Your task to perform on an android device: Search for sushi restaurants on Maps Image 0: 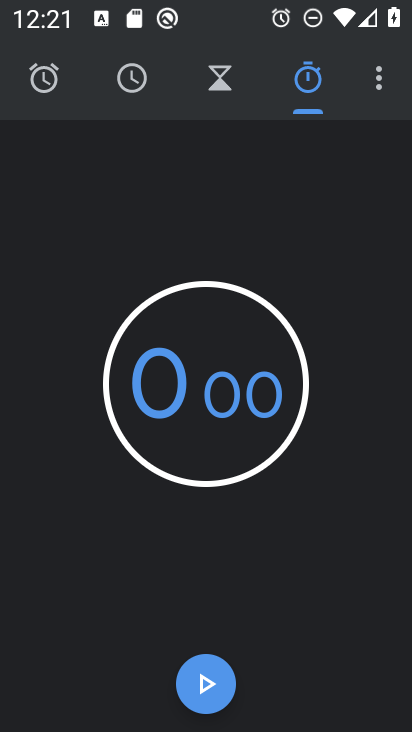
Step 0: press home button
Your task to perform on an android device: Search for sushi restaurants on Maps Image 1: 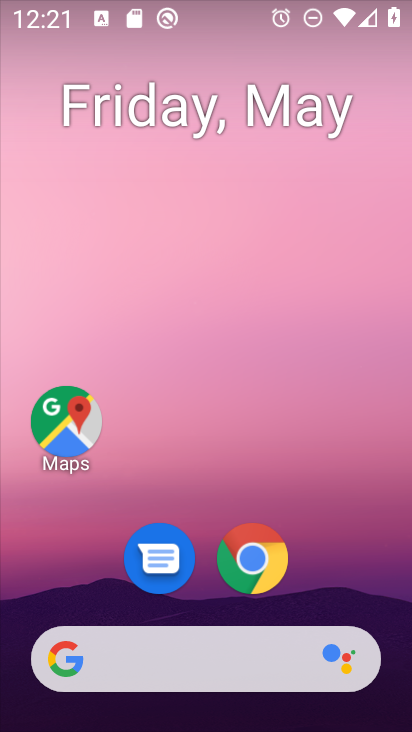
Step 1: click (66, 424)
Your task to perform on an android device: Search for sushi restaurants on Maps Image 2: 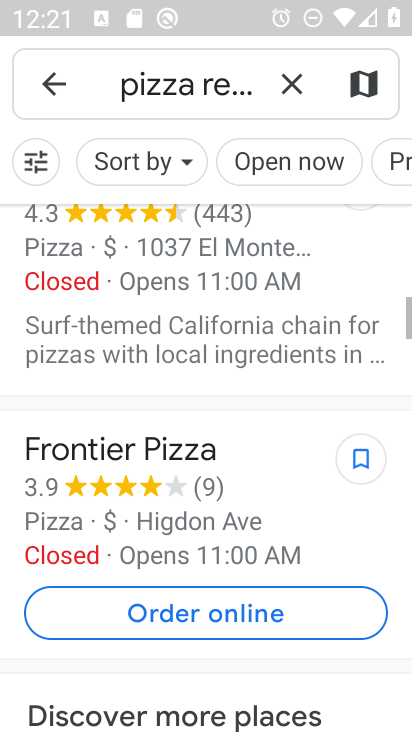
Step 2: click (288, 81)
Your task to perform on an android device: Search for sushi restaurants on Maps Image 3: 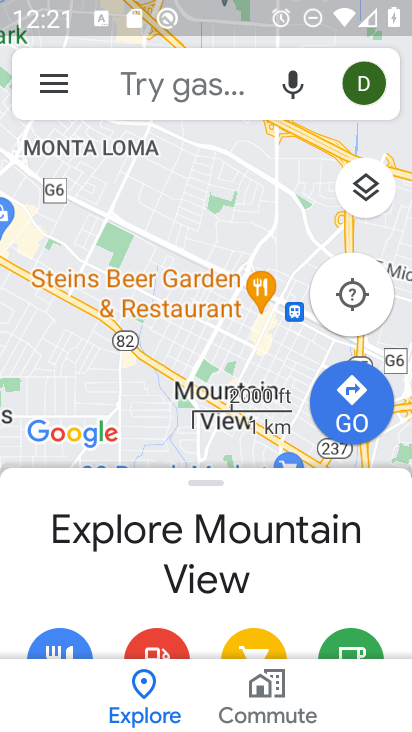
Step 3: click (146, 83)
Your task to perform on an android device: Search for sushi restaurants on Maps Image 4: 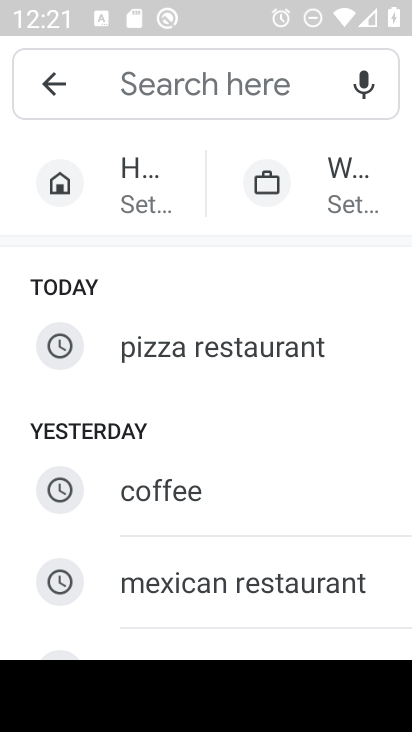
Step 4: type "sushi restaurants"
Your task to perform on an android device: Search for sushi restaurants on Maps Image 5: 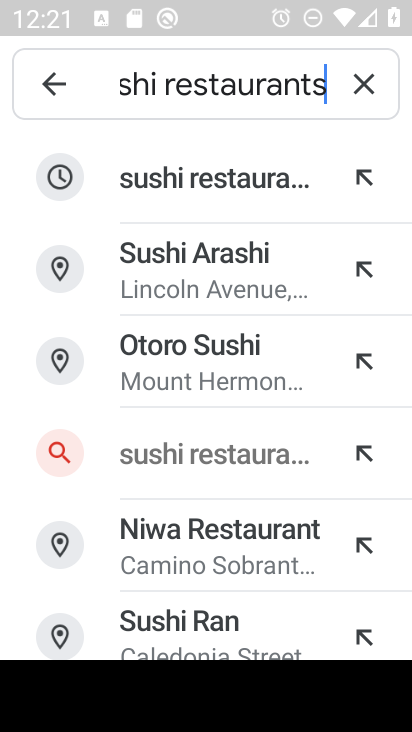
Step 5: click (169, 163)
Your task to perform on an android device: Search for sushi restaurants on Maps Image 6: 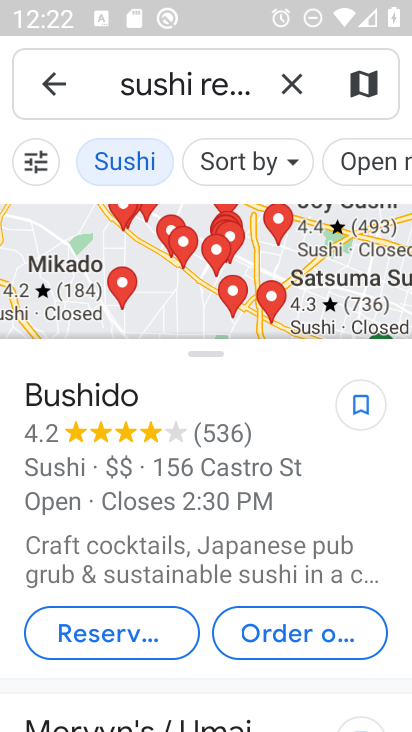
Step 6: task complete